Your task to perform on an android device: toggle sleep mode Image 0: 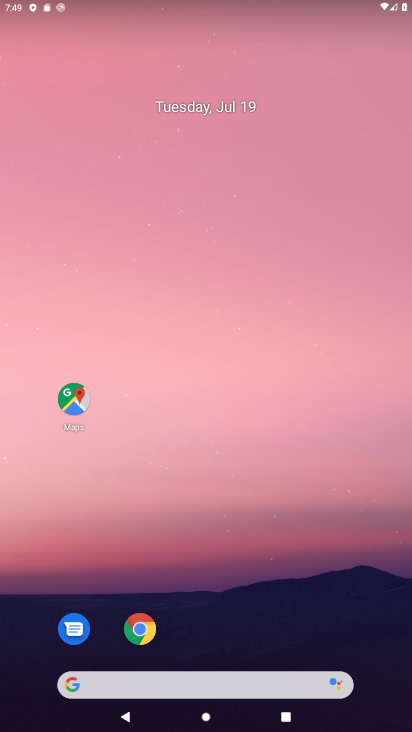
Step 0: click (337, 6)
Your task to perform on an android device: toggle sleep mode Image 1: 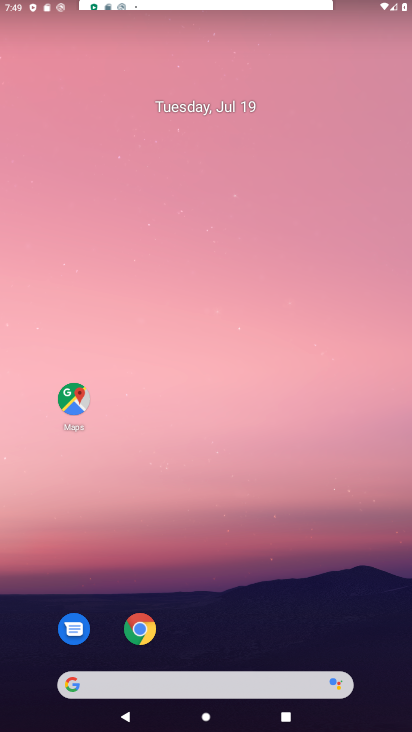
Step 1: drag from (174, 444) to (176, 128)
Your task to perform on an android device: toggle sleep mode Image 2: 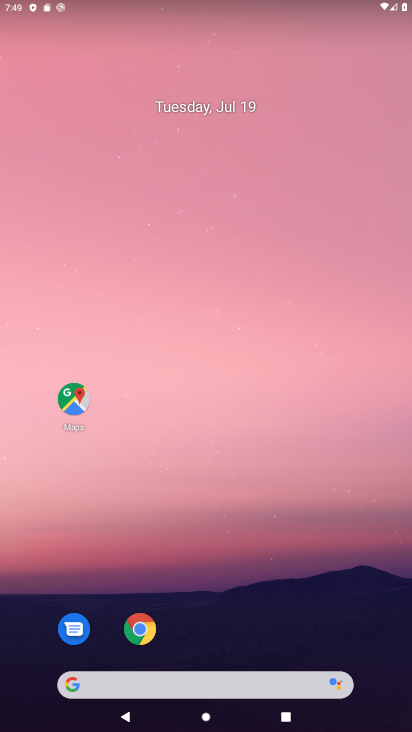
Step 2: drag from (184, 626) to (211, 34)
Your task to perform on an android device: toggle sleep mode Image 3: 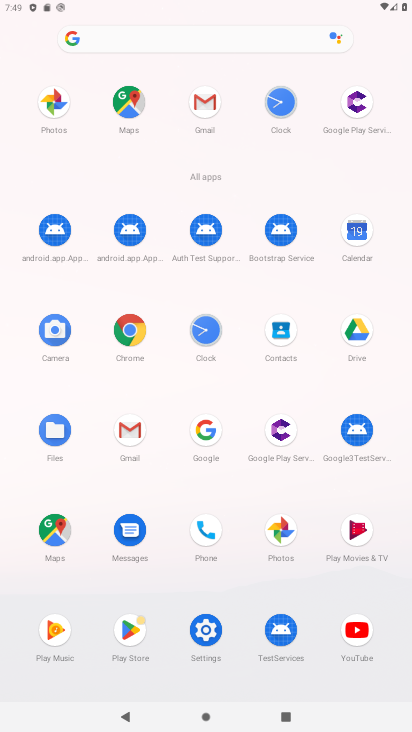
Step 3: click (208, 629)
Your task to perform on an android device: toggle sleep mode Image 4: 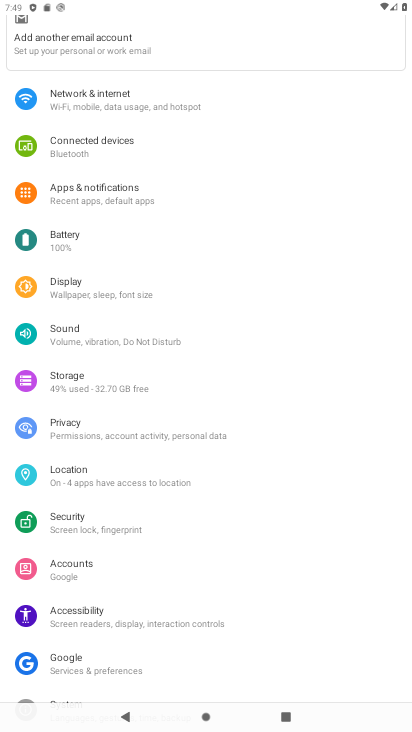
Step 4: click (214, 620)
Your task to perform on an android device: toggle sleep mode Image 5: 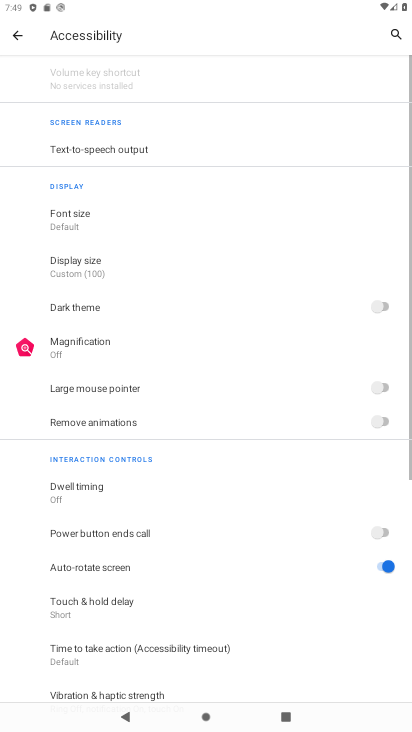
Step 5: drag from (201, 593) to (120, 4)
Your task to perform on an android device: toggle sleep mode Image 6: 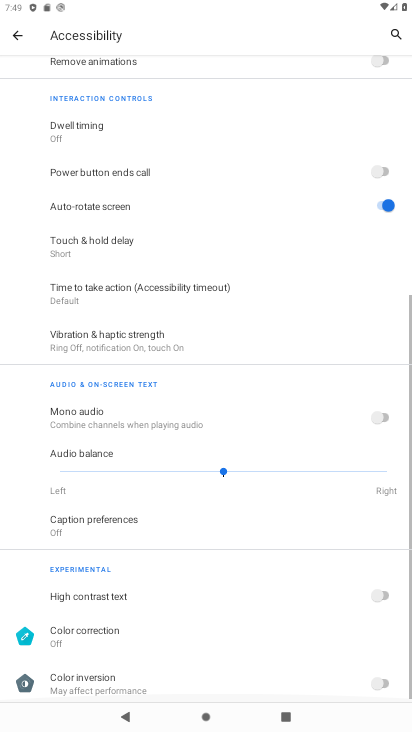
Step 6: click (26, 35)
Your task to perform on an android device: toggle sleep mode Image 7: 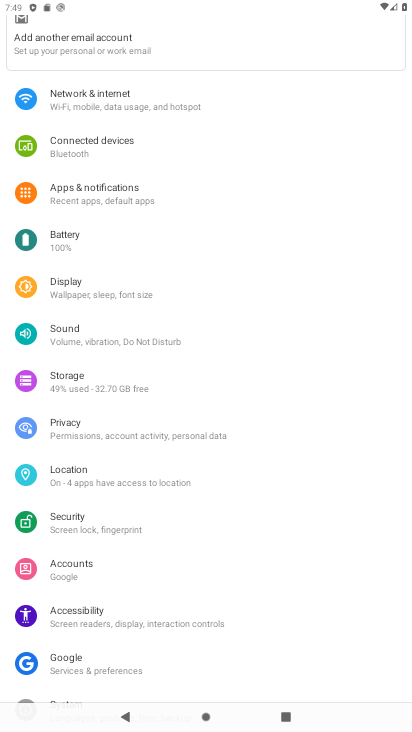
Step 7: drag from (195, 177) to (111, 731)
Your task to perform on an android device: toggle sleep mode Image 8: 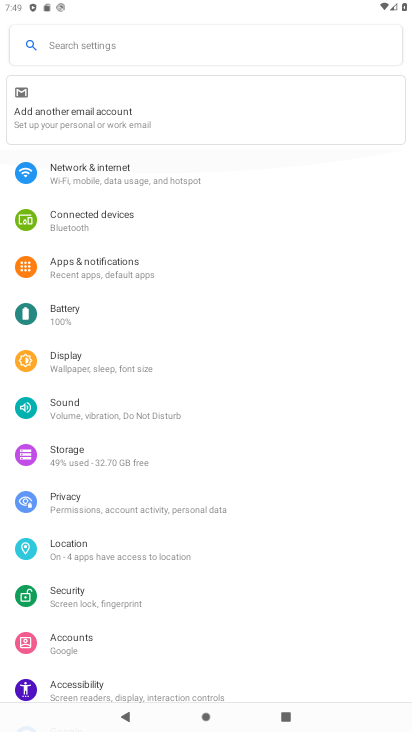
Step 8: drag from (186, 373) to (236, 726)
Your task to perform on an android device: toggle sleep mode Image 9: 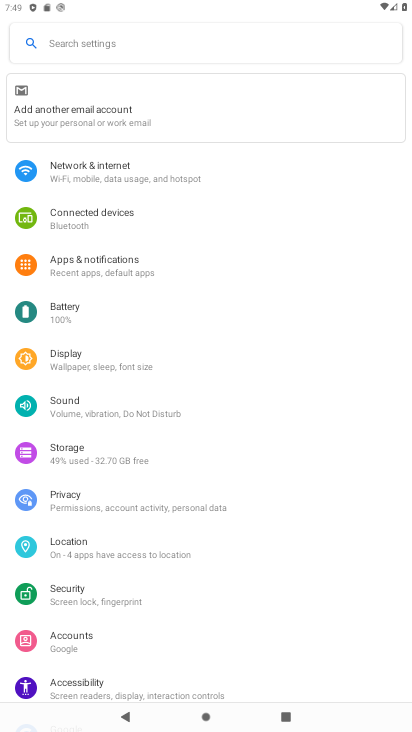
Step 9: click (123, 372)
Your task to perform on an android device: toggle sleep mode Image 10: 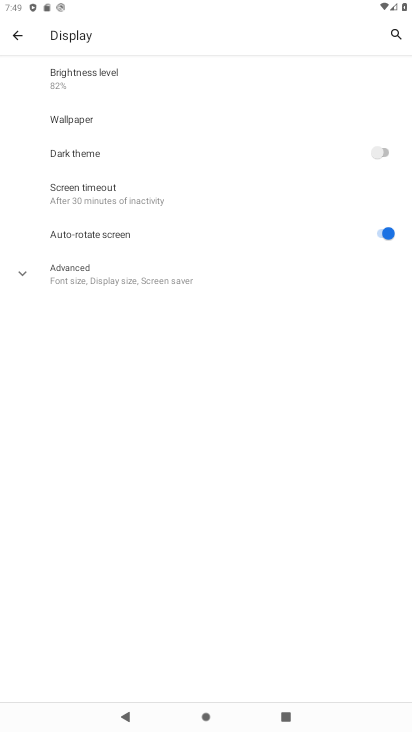
Step 10: click (93, 191)
Your task to perform on an android device: toggle sleep mode Image 11: 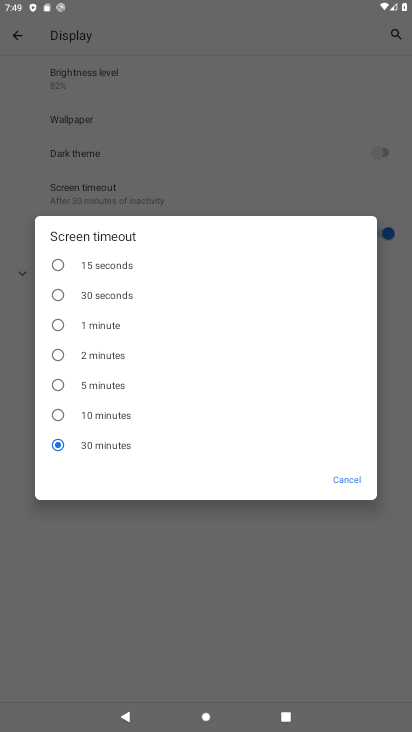
Step 11: task complete